Your task to perform on an android device: toggle notification dots Image 0: 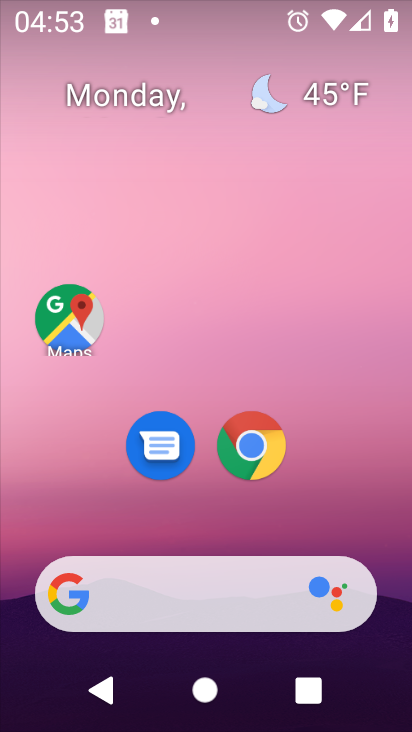
Step 0: drag from (268, 528) to (289, 84)
Your task to perform on an android device: toggle notification dots Image 1: 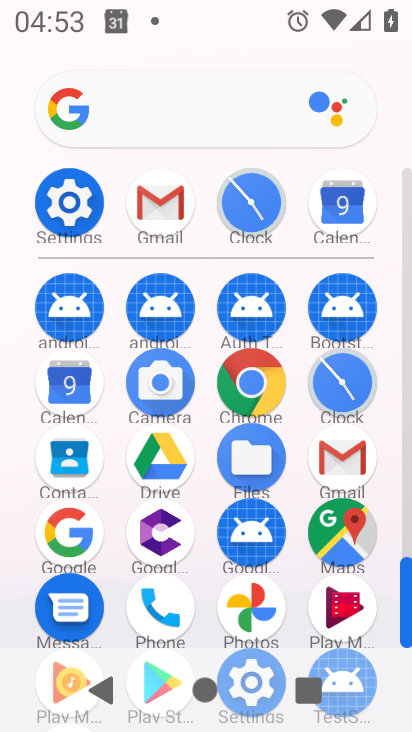
Step 1: click (51, 196)
Your task to perform on an android device: toggle notification dots Image 2: 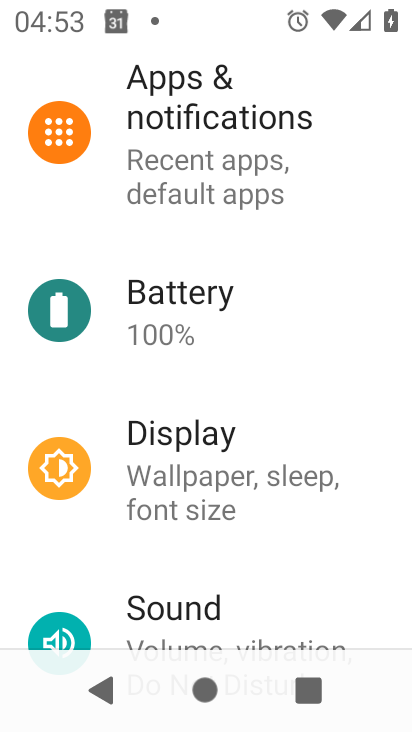
Step 2: drag from (248, 192) to (308, 477)
Your task to perform on an android device: toggle notification dots Image 3: 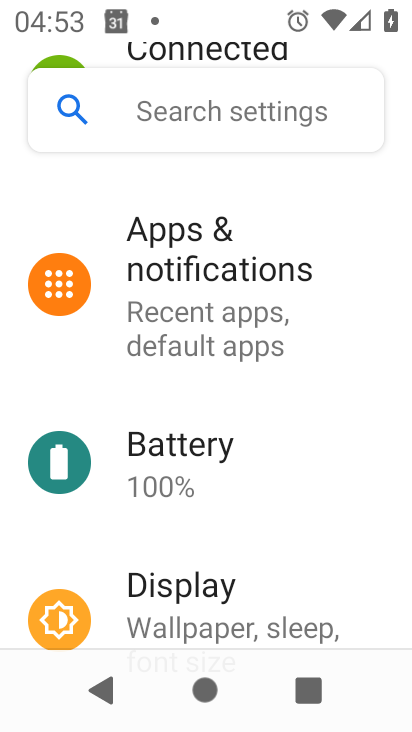
Step 3: click (224, 324)
Your task to perform on an android device: toggle notification dots Image 4: 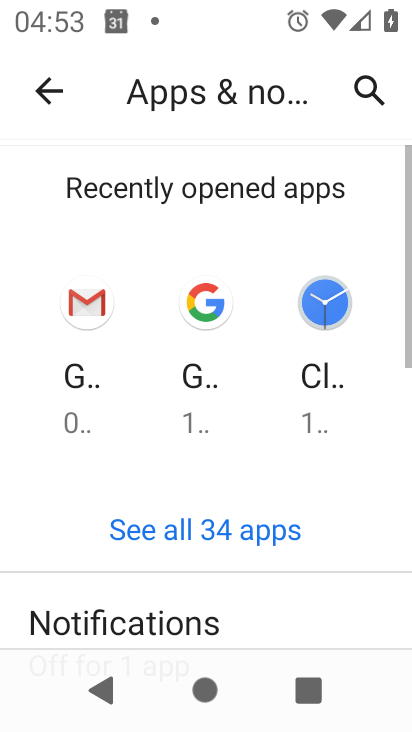
Step 4: drag from (194, 565) to (207, 168)
Your task to perform on an android device: toggle notification dots Image 5: 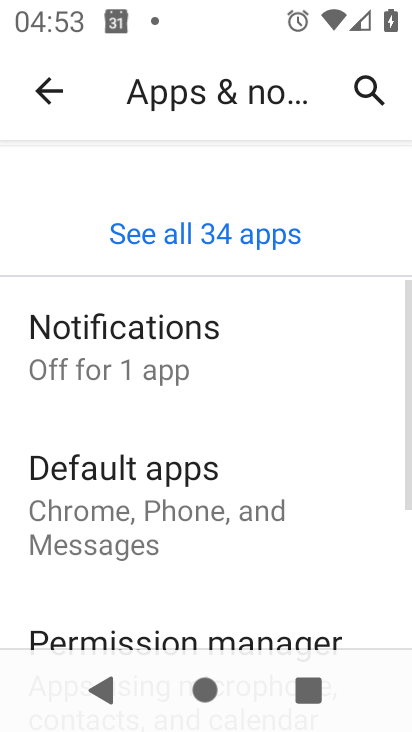
Step 5: drag from (194, 471) to (192, 138)
Your task to perform on an android device: toggle notification dots Image 6: 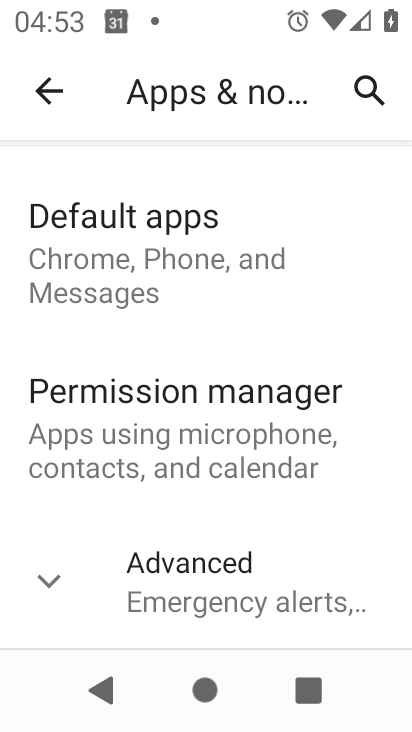
Step 6: drag from (188, 150) to (261, 375)
Your task to perform on an android device: toggle notification dots Image 7: 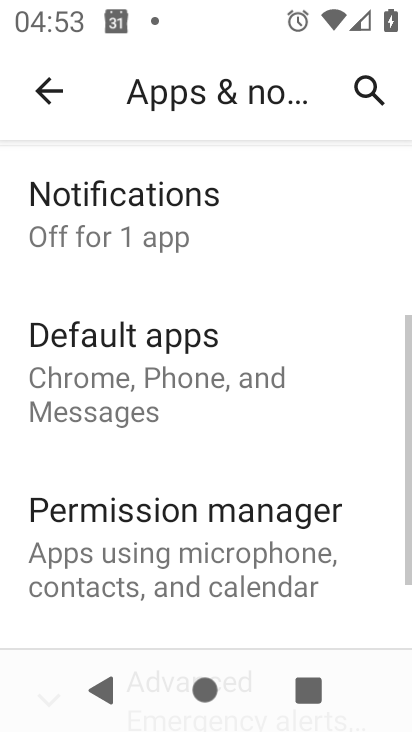
Step 7: click (210, 210)
Your task to perform on an android device: toggle notification dots Image 8: 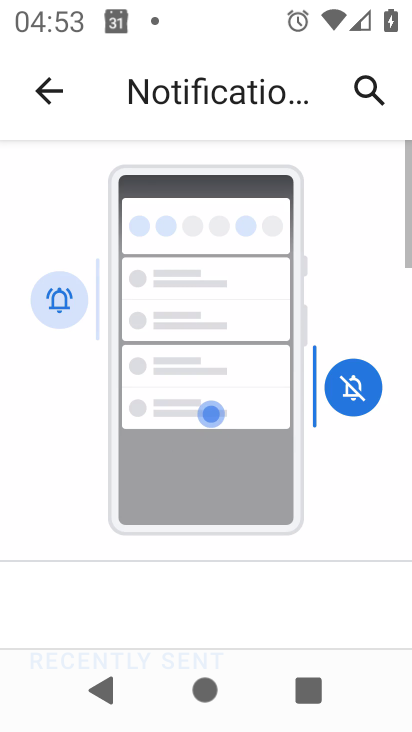
Step 8: drag from (240, 525) to (322, 63)
Your task to perform on an android device: toggle notification dots Image 9: 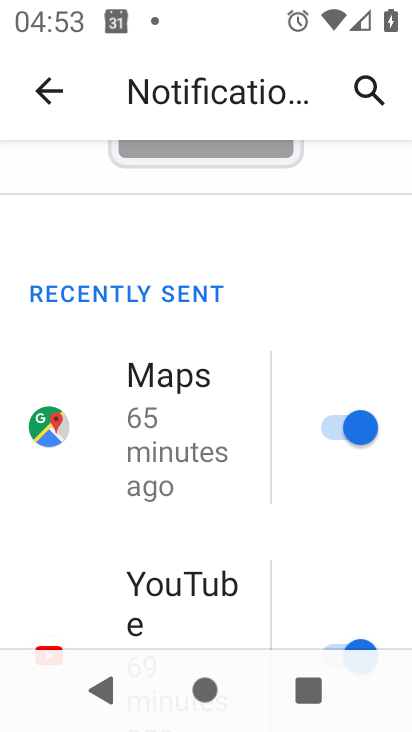
Step 9: drag from (260, 569) to (316, 12)
Your task to perform on an android device: toggle notification dots Image 10: 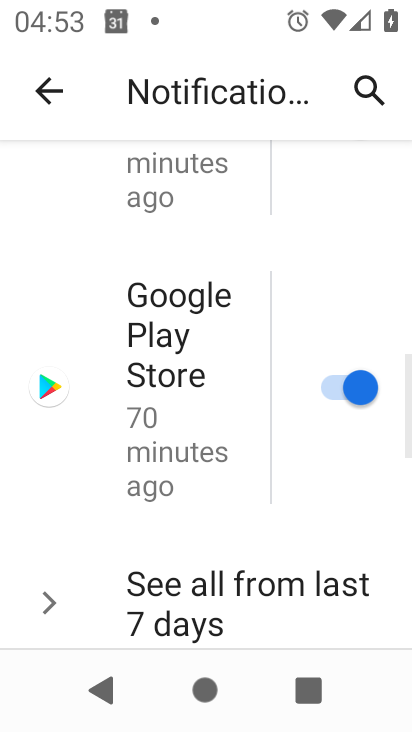
Step 10: drag from (313, 510) to (325, 6)
Your task to perform on an android device: toggle notification dots Image 11: 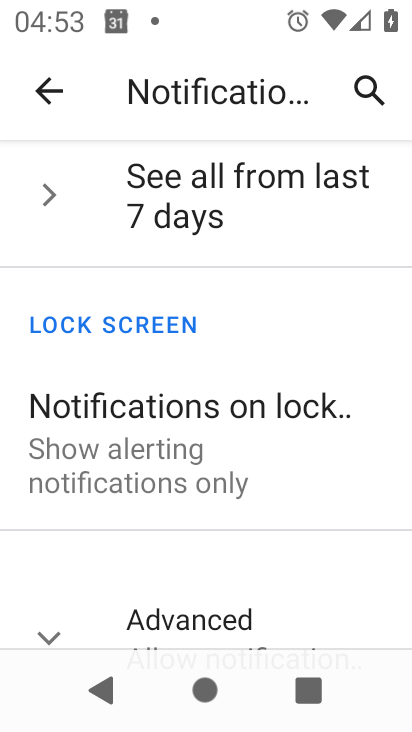
Step 11: click (218, 605)
Your task to perform on an android device: toggle notification dots Image 12: 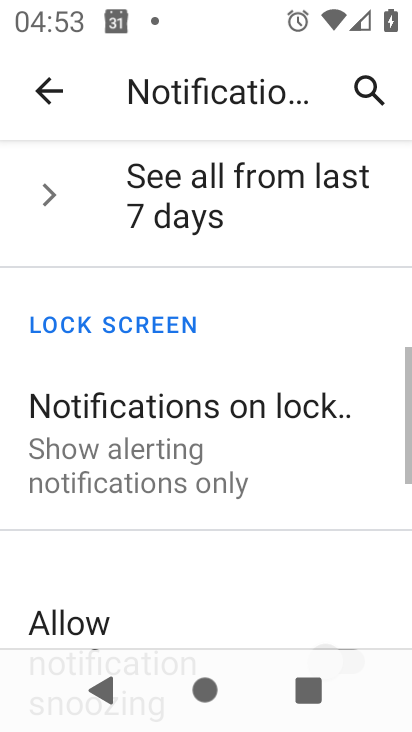
Step 12: drag from (221, 594) to (245, 107)
Your task to perform on an android device: toggle notification dots Image 13: 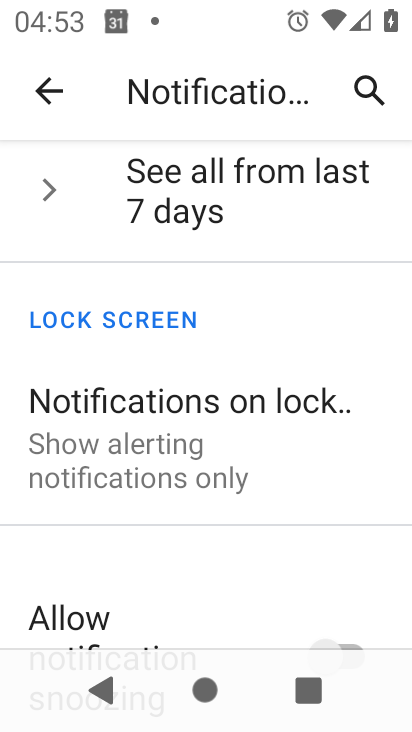
Step 13: drag from (148, 500) to (171, 39)
Your task to perform on an android device: toggle notification dots Image 14: 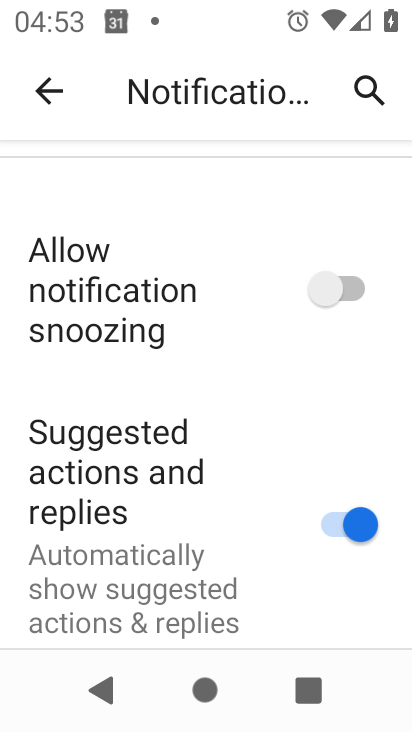
Step 14: drag from (195, 564) to (208, 55)
Your task to perform on an android device: toggle notification dots Image 15: 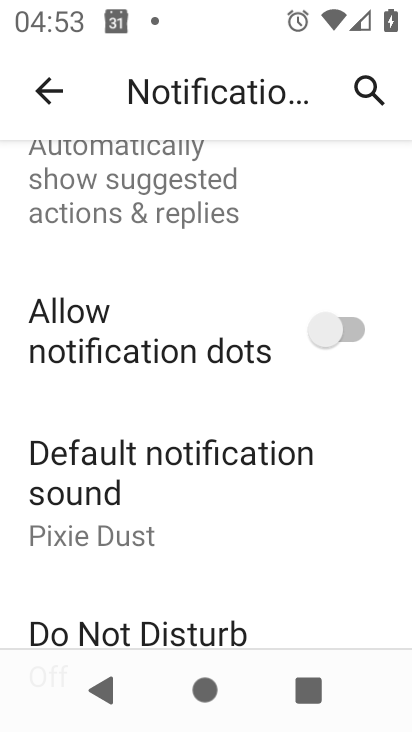
Step 15: click (320, 335)
Your task to perform on an android device: toggle notification dots Image 16: 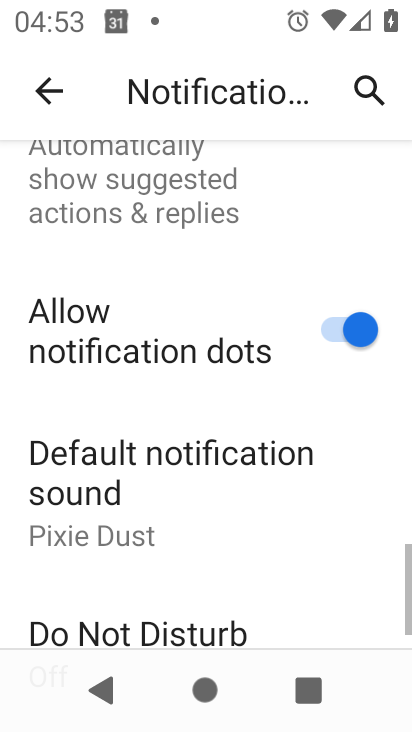
Step 16: task complete